Your task to perform on an android device: turn on improve location accuracy Image 0: 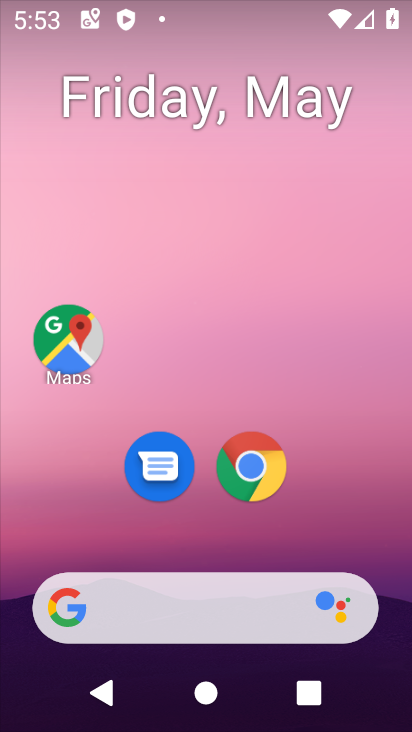
Step 0: drag from (371, 521) to (223, 11)
Your task to perform on an android device: turn on improve location accuracy Image 1: 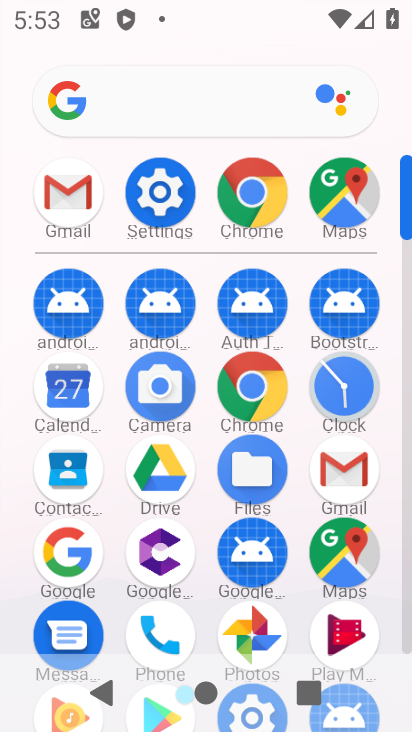
Step 1: drag from (16, 556) to (37, 265)
Your task to perform on an android device: turn on improve location accuracy Image 2: 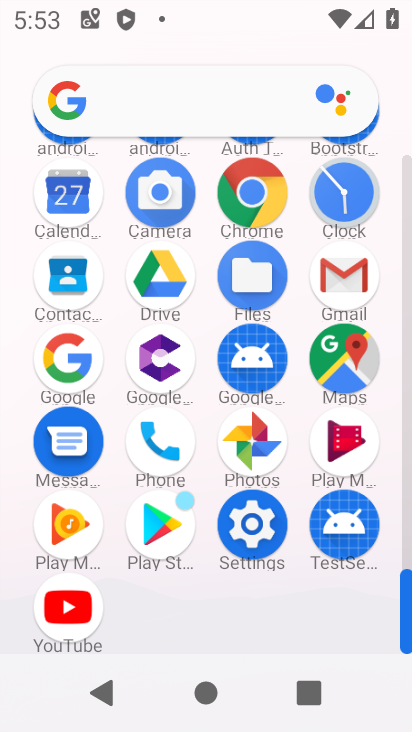
Step 2: drag from (17, 199) to (2, 427)
Your task to perform on an android device: turn on improve location accuracy Image 3: 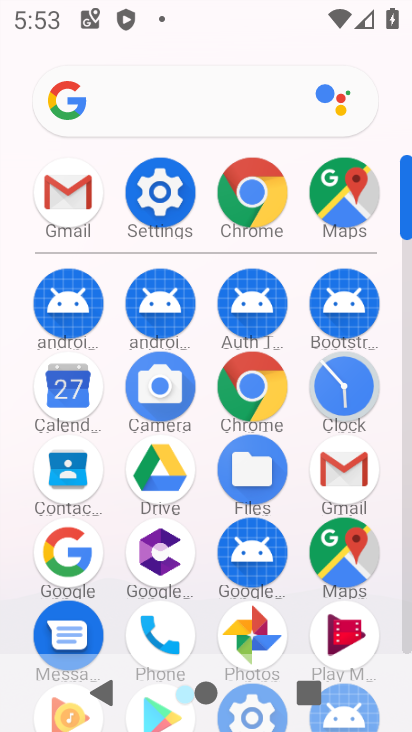
Step 3: drag from (26, 548) to (18, 277)
Your task to perform on an android device: turn on improve location accuracy Image 4: 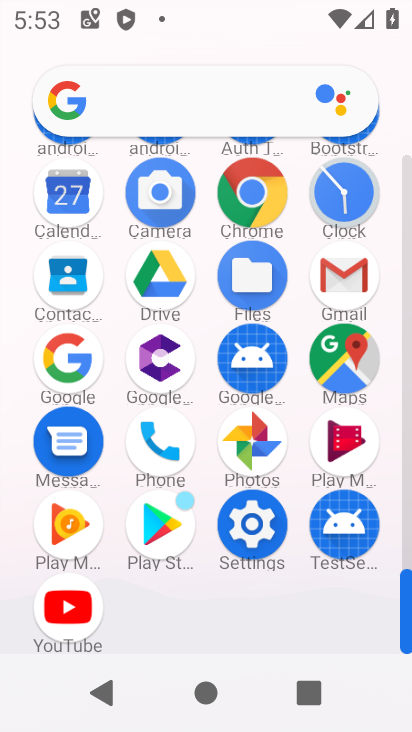
Step 4: click (343, 356)
Your task to perform on an android device: turn on improve location accuracy Image 5: 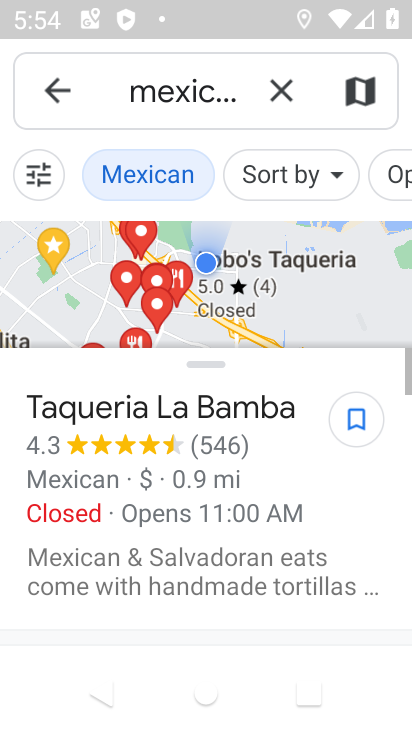
Step 5: click (47, 83)
Your task to perform on an android device: turn on improve location accuracy Image 6: 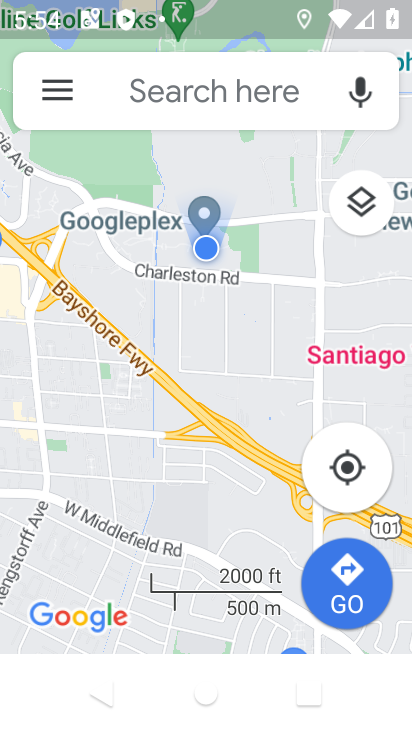
Step 6: click (47, 83)
Your task to perform on an android device: turn on improve location accuracy Image 7: 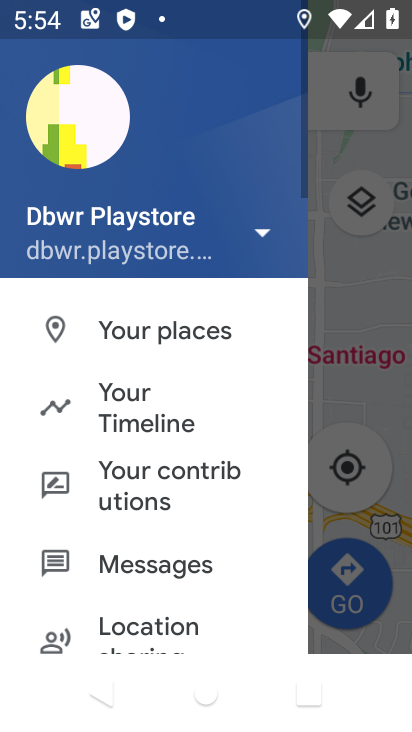
Step 7: drag from (192, 617) to (215, 259)
Your task to perform on an android device: turn on improve location accuracy Image 8: 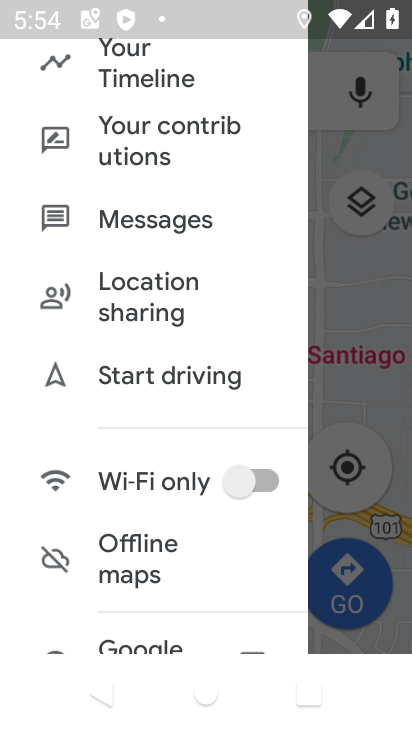
Step 8: drag from (174, 622) to (185, 158)
Your task to perform on an android device: turn on improve location accuracy Image 9: 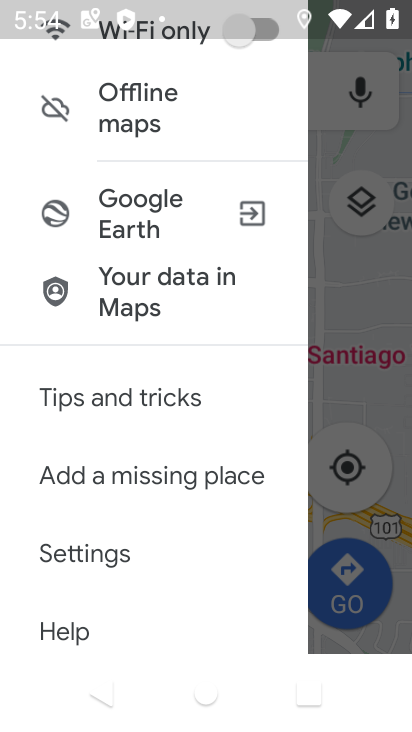
Step 9: click (90, 552)
Your task to perform on an android device: turn on improve location accuracy Image 10: 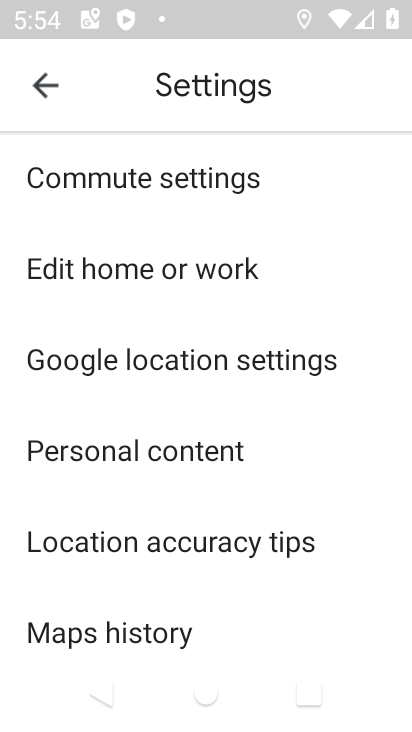
Step 10: click (136, 359)
Your task to perform on an android device: turn on improve location accuracy Image 11: 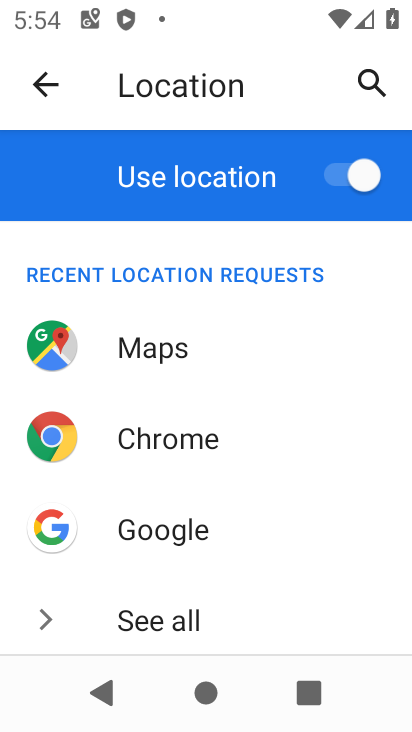
Step 11: drag from (235, 494) to (245, 150)
Your task to perform on an android device: turn on improve location accuracy Image 12: 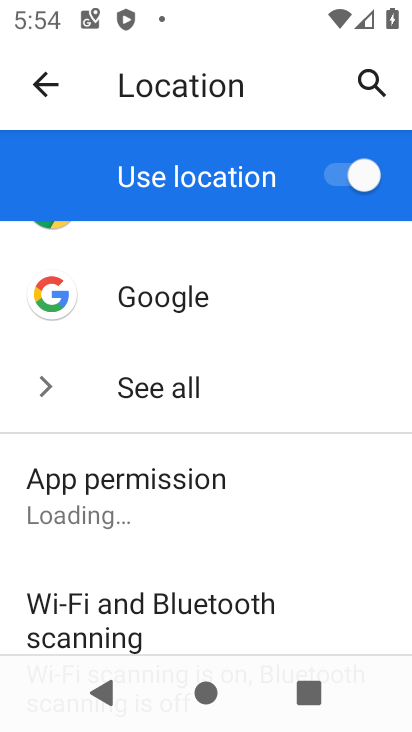
Step 12: drag from (209, 557) to (243, 172)
Your task to perform on an android device: turn on improve location accuracy Image 13: 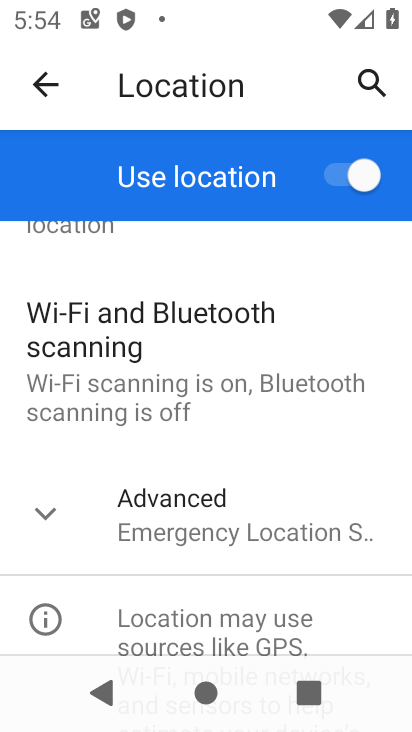
Step 13: click (186, 520)
Your task to perform on an android device: turn on improve location accuracy Image 14: 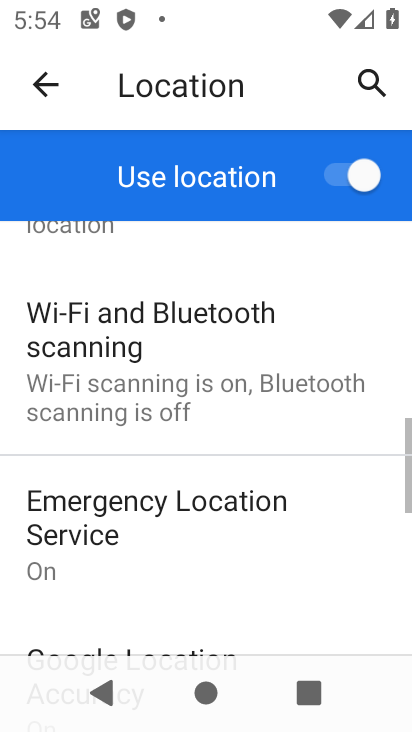
Step 14: drag from (292, 564) to (298, 218)
Your task to perform on an android device: turn on improve location accuracy Image 15: 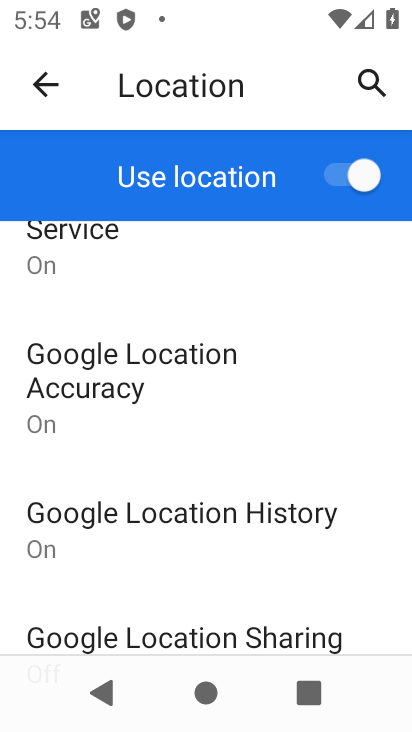
Step 15: click (132, 393)
Your task to perform on an android device: turn on improve location accuracy Image 16: 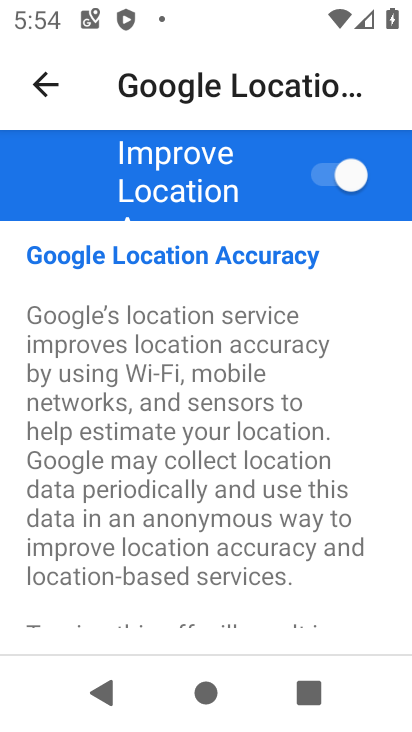
Step 16: task complete